Your task to perform on an android device: What is the recent news? Image 0: 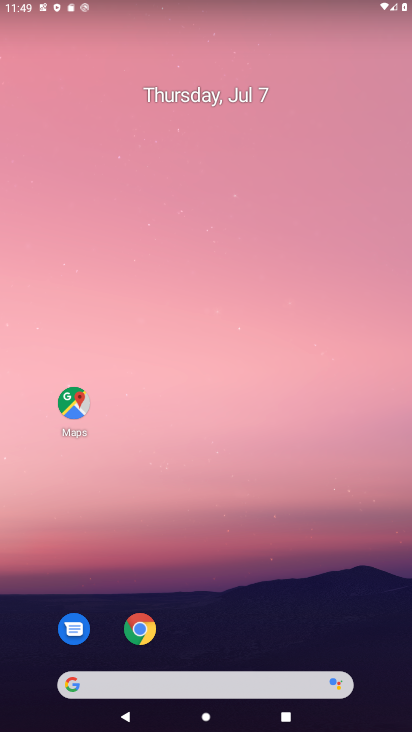
Step 0: drag from (5, 313) to (354, 310)
Your task to perform on an android device: What is the recent news? Image 1: 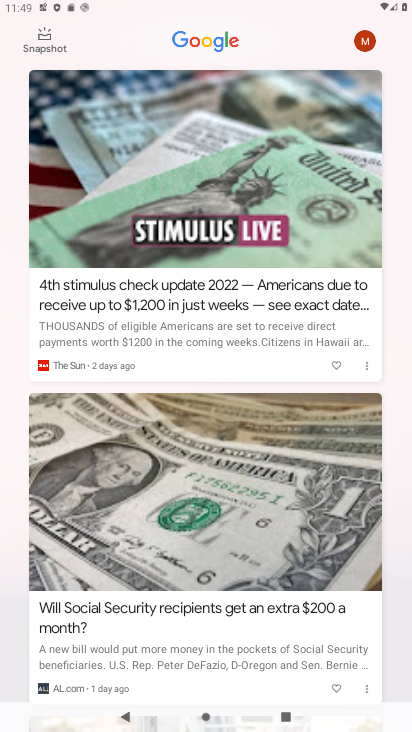
Step 1: task complete